Your task to perform on an android device: remove spam from my inbox in the gmail app Image 0: 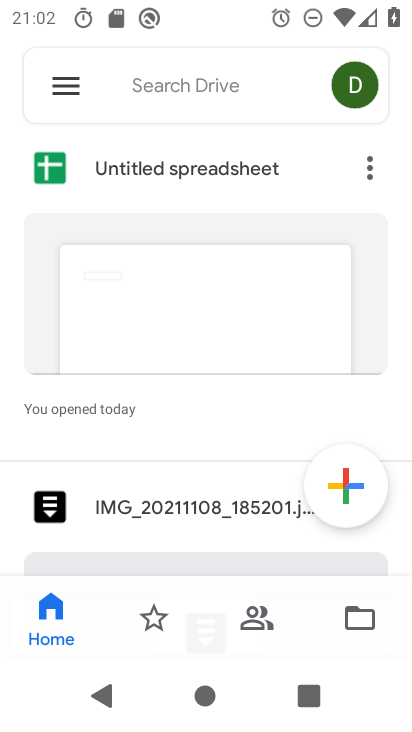
Step 0: press home button
Your task to perform on an android device: remove spam from my inbox in the gmail app Image 1: 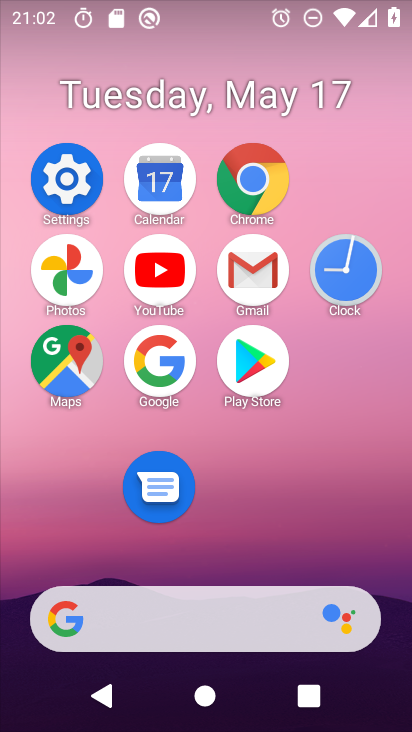
Step 1: click (254, 281)
Your task to perform on an android device: remove spam from my inbox in the gmail app Image 2: 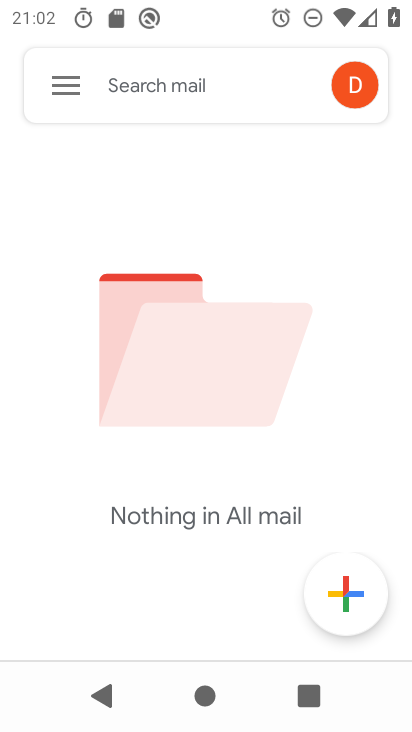
Step 2: click (61, 109)
Your task to perform on an android device: remove spam from my inbox in the gmail app Image 3: 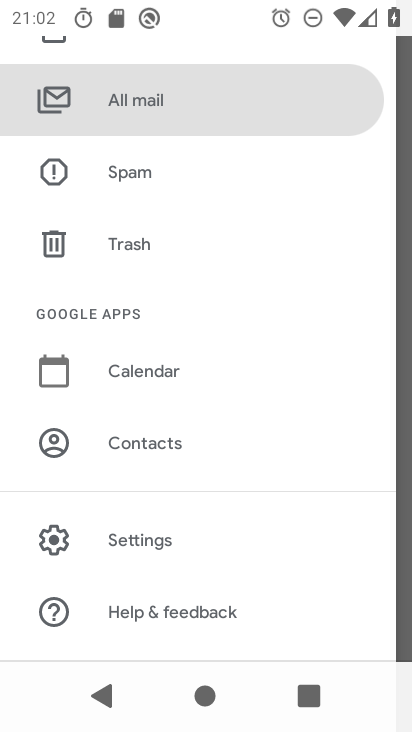
Step 3: click (226, 172)
Your task to perform on an android device: remove spam from my inbox in the gmail app Image 4: 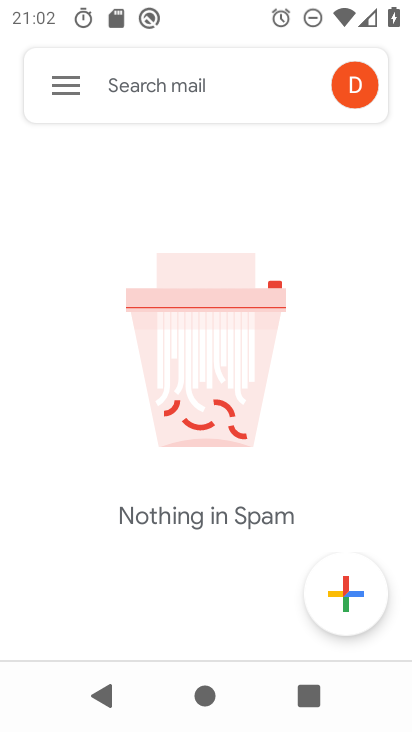
Step 4: task complete